Your task to perform on an android device: turn on data saver in the chrome app Image 0: 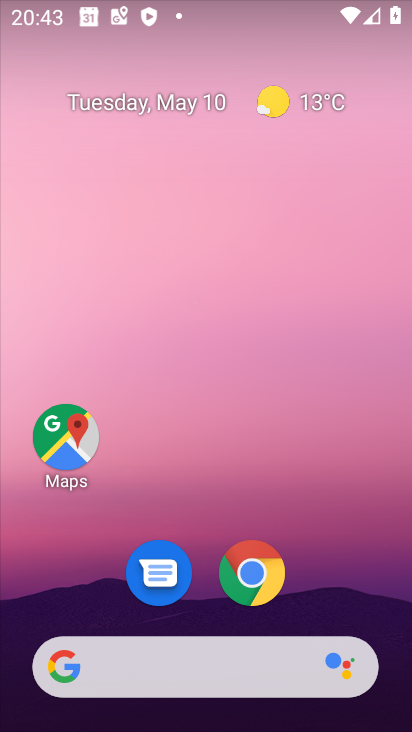
Step 0: click (245, 579)
Your task to perform on an android device: turn on data saver in the chrome app Image 1: 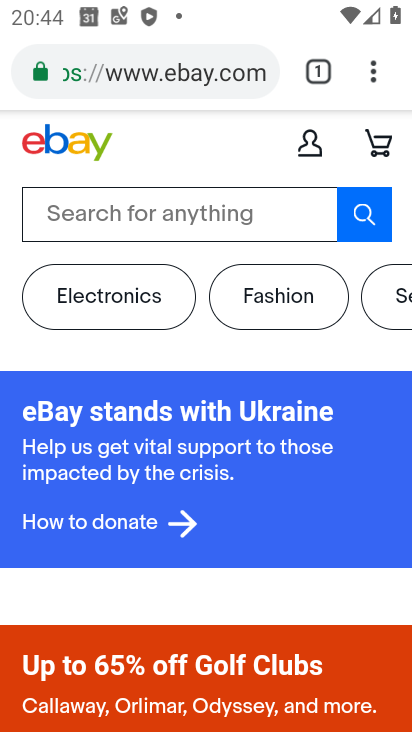
Step 1: click (382, 70)
Your task to perform on an android device: turn on data saver in the chrome app Image 2: 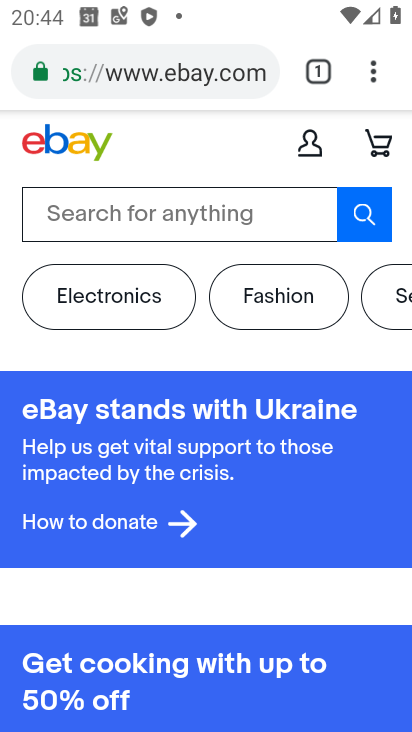
Step 2: click (372, 69)
Your task to perform on an android device: turn on data saver in the chrome app Image 3: 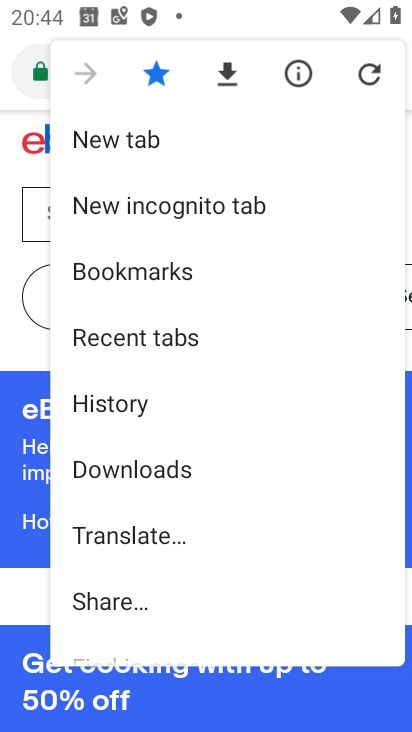
Step 3: drag from (166, 571) to (173, 160)
Your task to perform on an android device: turn on data saver in the chrome app Image 4: 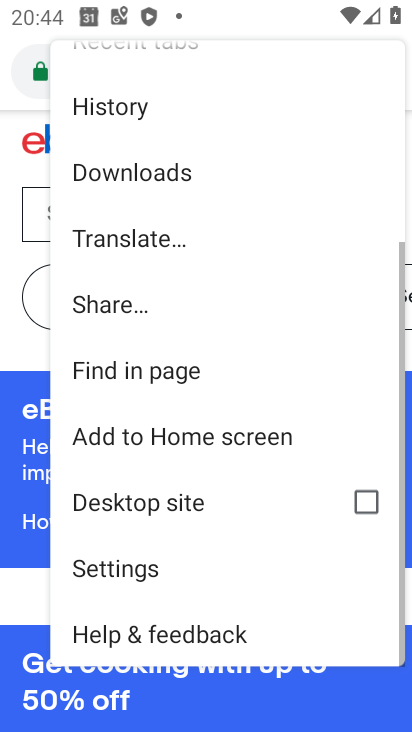
Step 4: click (154, 565)
Your task to perform on an android device: turn on data saver in the chrome app Image 5: 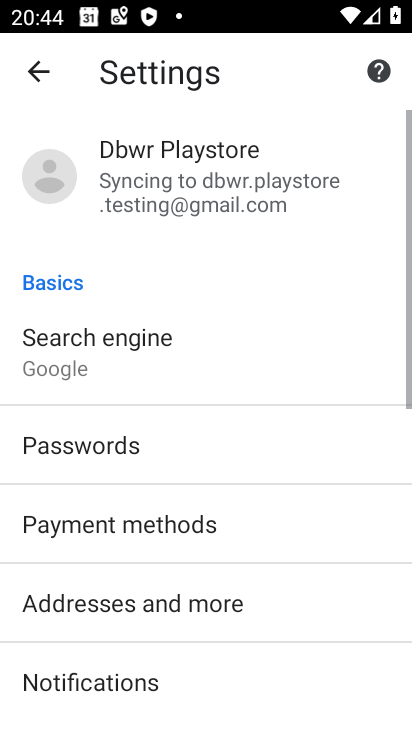
Step 5: drag from (168, 611) to (170, 175)
Your task to perform on an android device: turn on data saver in the chrome app Image 6: 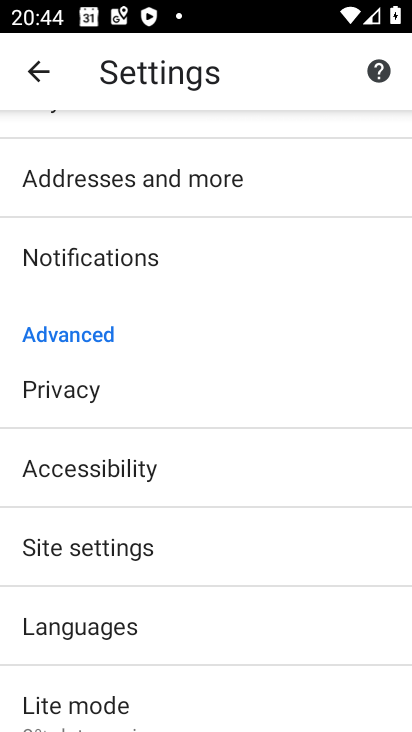
Step 6: drag from (147, 624) to (150, 378)
Your task to perform on an android device: turn on data saver in the chrome app Image 7: 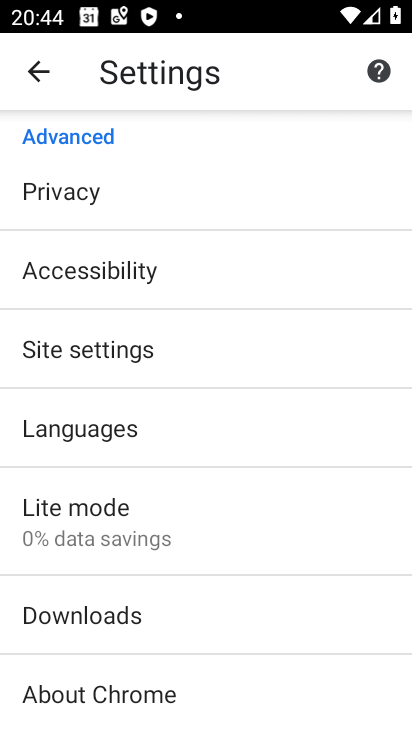
Step 7: click (47, 527)
Your task to perform on an android device: turn on data saver in the chrome app Image 8: 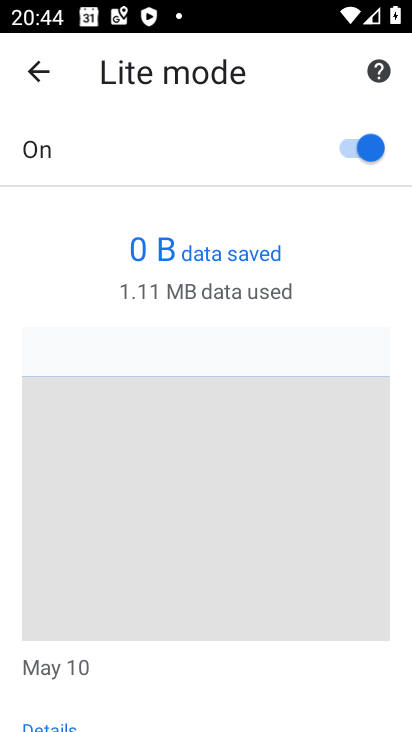
Step 8: task complete